Your task to perform on an android device: Open Google Maps Image 0: 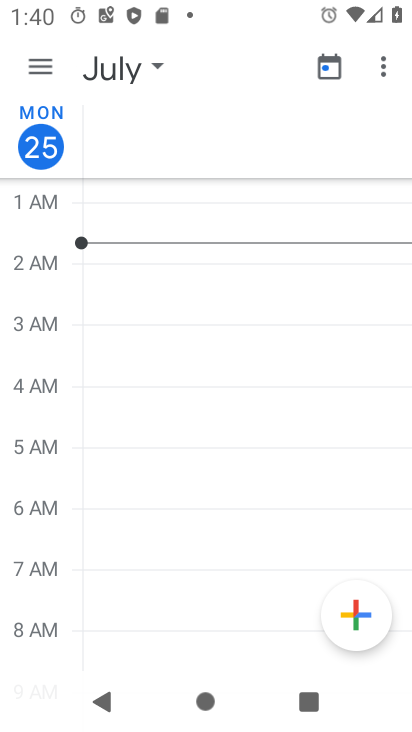
Step 0: press home button
Your task to perform on an android device: Open Google Maps Image 1: 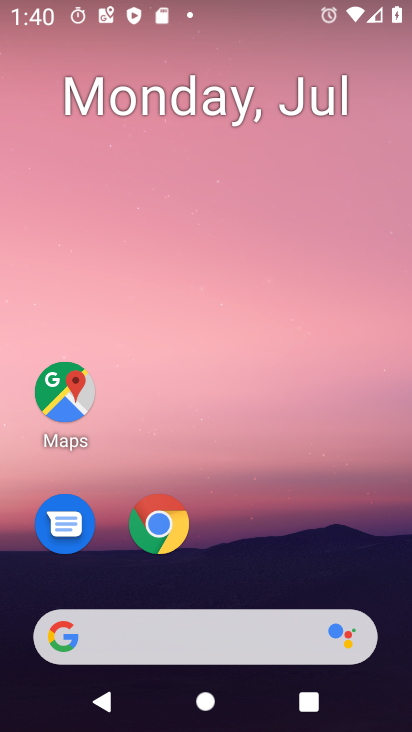
Step 1: click (63, 384)
Your task to perform on an android device: Open Google Maps Image 2: 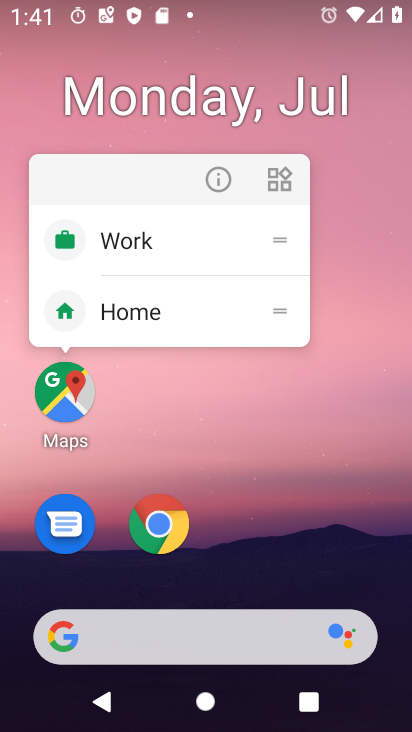
Step 2: click (77, 381)
Your task to perform on an android device: Open Google Maps Image 3: 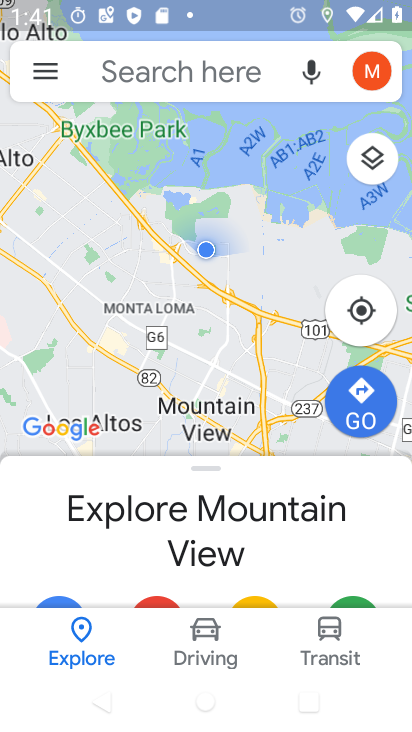
Step 3: task complete